Your task to perform on an android device: Open calendar and show me the first week of next month Image 0: 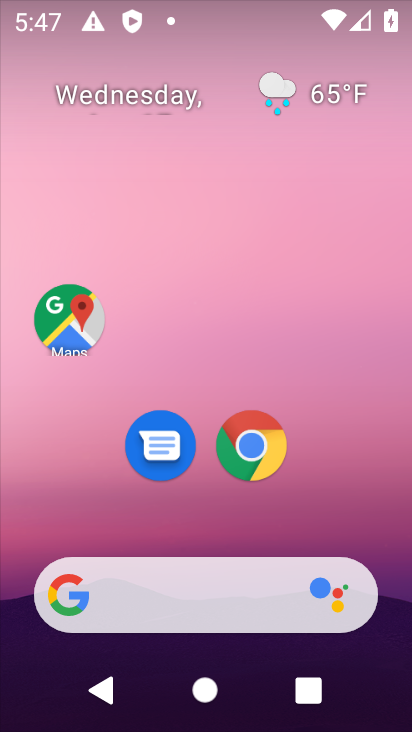
Step 0: drag from (197, 528) to (209, 124)
Your task to perform on an android device: Open calendar and show me the first week of next month Image 1: 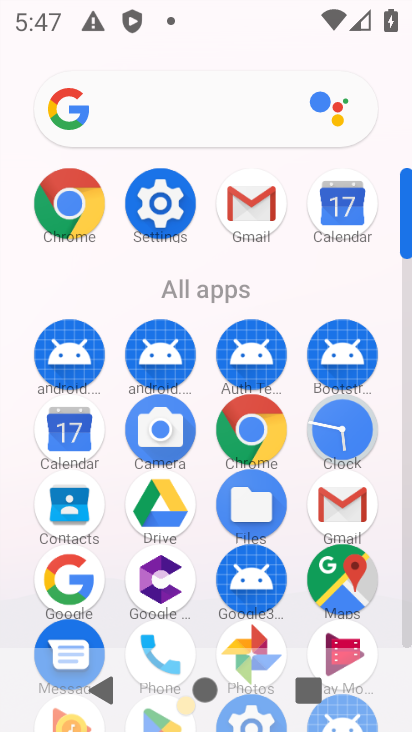
Step 1: click (340, 220)
Your task to perform on an android device: Open calendar and show me the first week of next month Image 2: 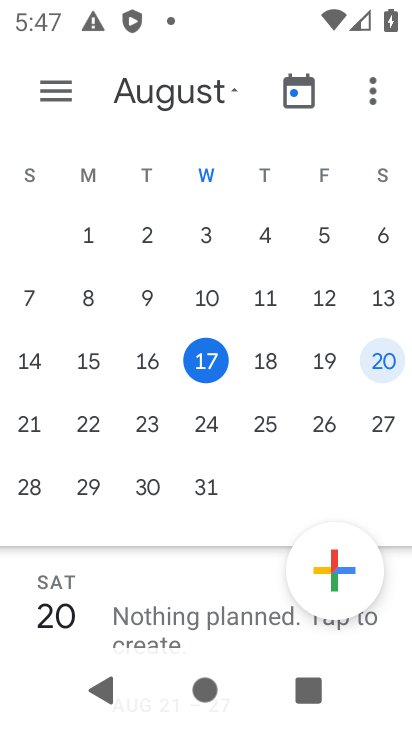
Step 2: drag from (334, 258) to (29, 239)
Your task to perform on an android device: Open calendar and show me the first week of next month Image 3: 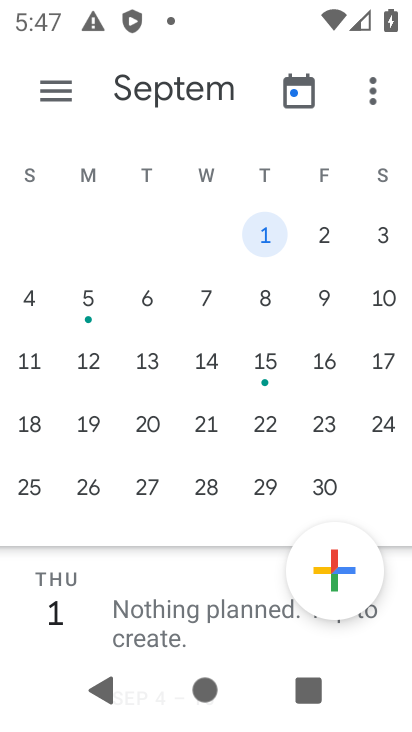
Step 3: click (256, 234)
Your task to perform on an android device: Open calendar and show me the first week of next month Image 4: 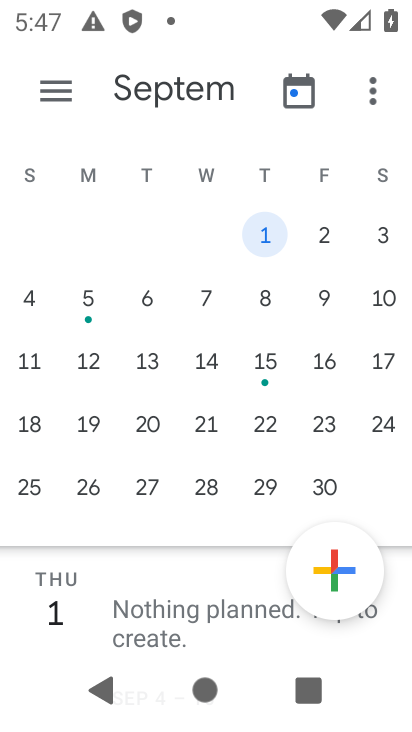
Step 4: task complete